Your task to perform on an android device: add a contact in the contacts app Image 0: 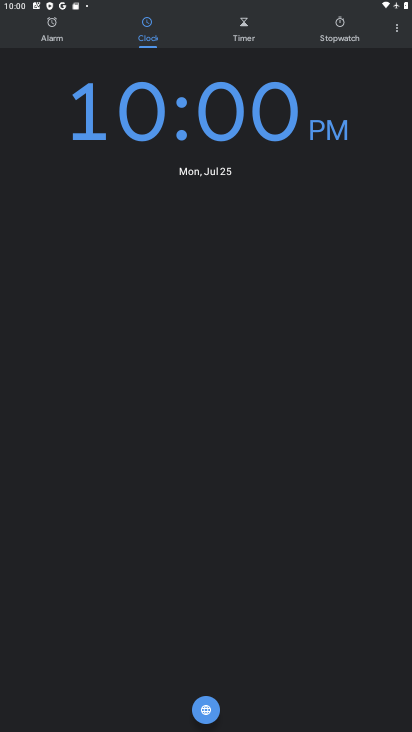
Step 0: press home button
Your task to perform on an android device: add a contact in the contacts app Image 1: 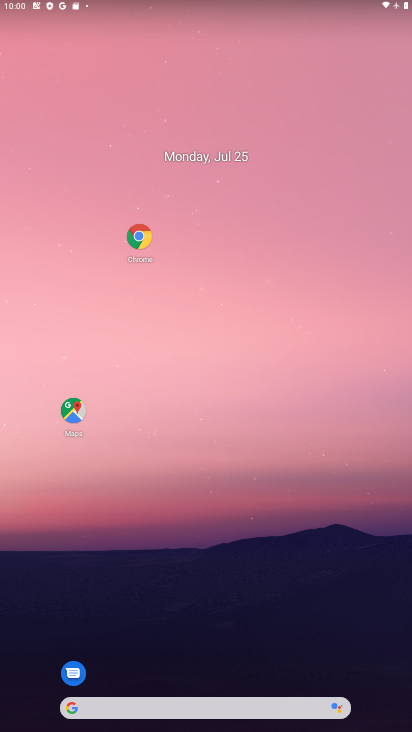
Step 1: drag from (186, 682) to (266, 165)
Your task to perform on an android device: add a contact in the contacts app Image 2: 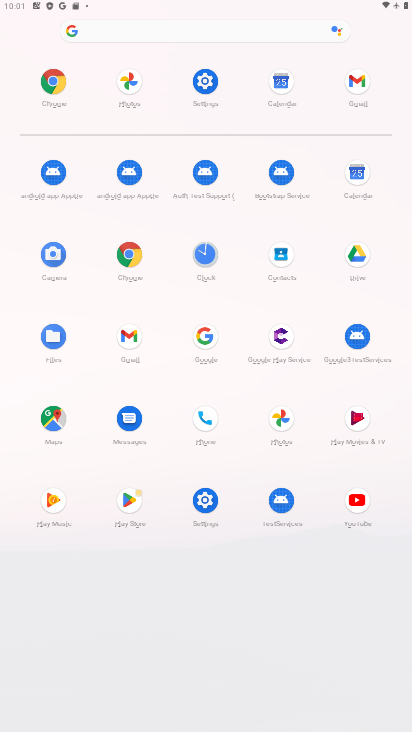
Step 2: click (282, 260)
Your task to perform on an android device: add a contact in the contacts app Image 3: 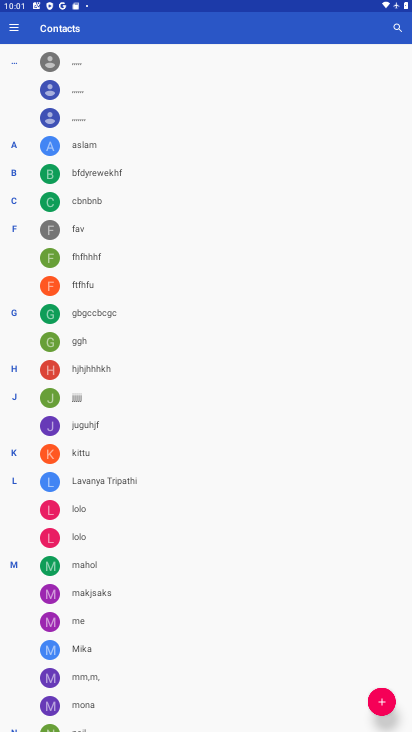
Step 3: click (372, 706)
Your task to perform on an android device: add a contact in the contacts app Image 4: 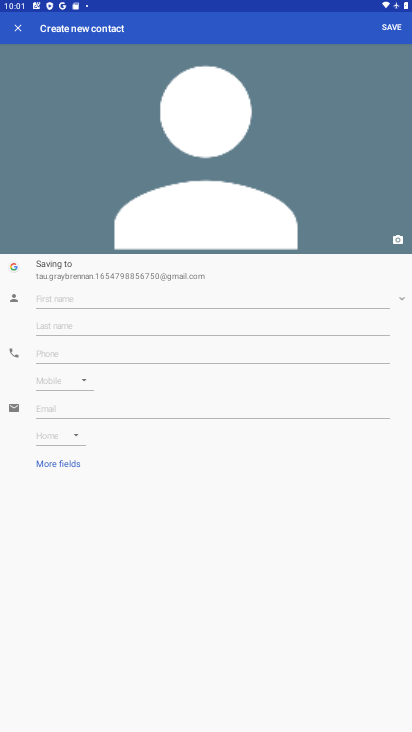
Step 4: click (180, 293)
Your task to perform on an android device: add a contact in the contacts app Image 5: 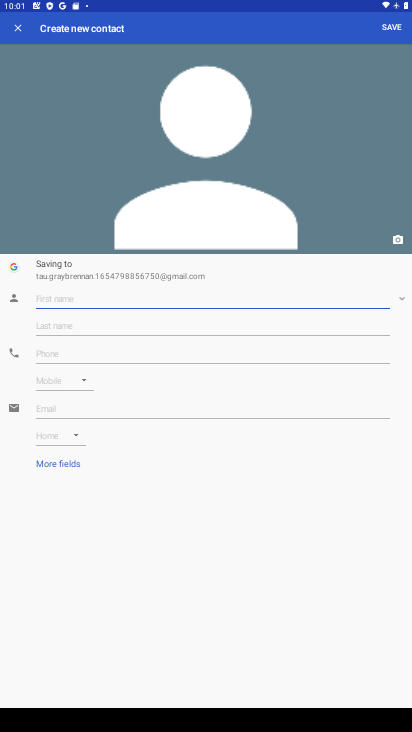
Step 5: type "jknkk"
Your task to perform on an android device: add a contact in the contacts app Image 6: 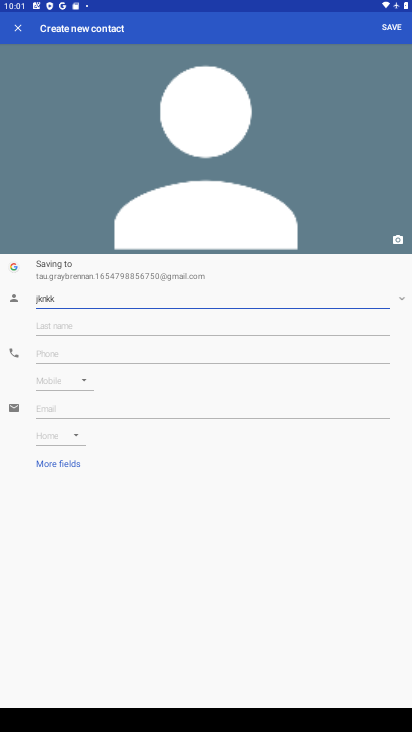
Step 6: click (245, 330)
Your task to perform on an android device: add a contact in the contacts app Image 7: 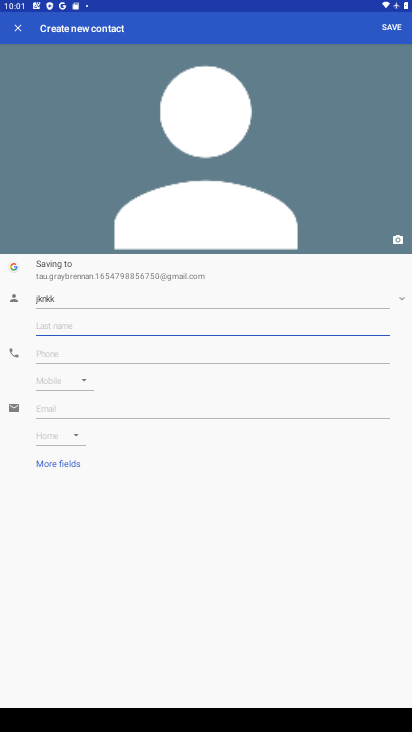
Step 7: type "kffkgc"
Your task to perform on an android device: add a contact in the contacts app Image 8: 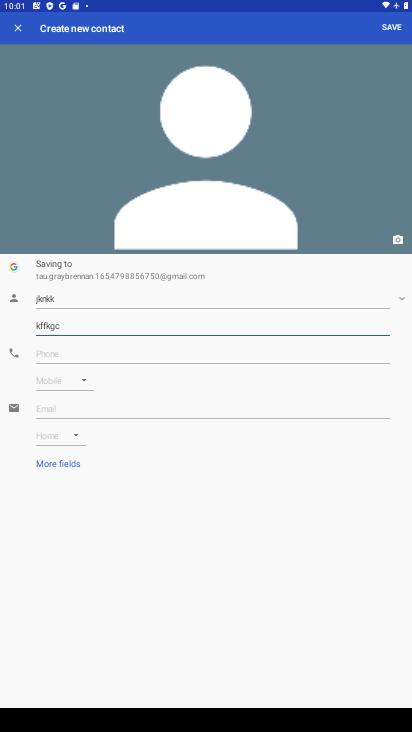
Step 8: click (97, 347)
Your task to perform on an android device: add a contact in the contacts app Image 9: 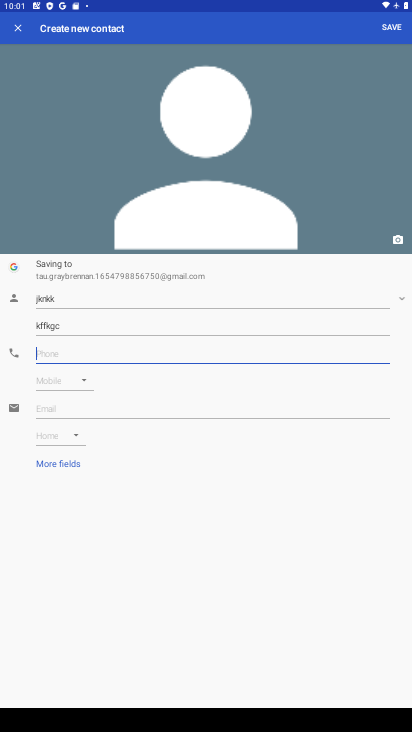
Step 9: type "9768745"
Your task to perform on an android device: add a contact in the contacts app Image 10: 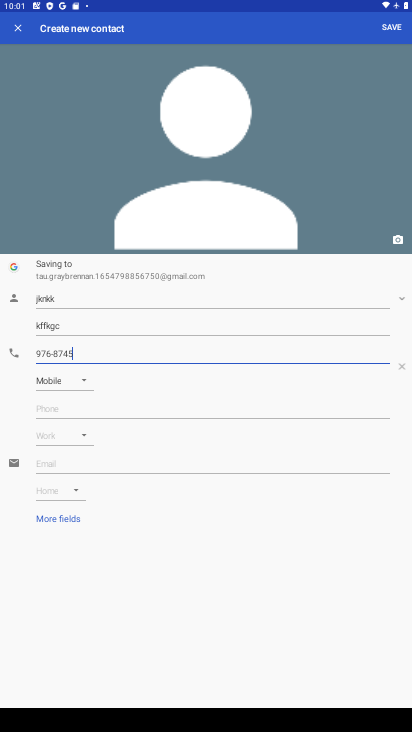
Step 10: click (393, 28)
Your task to perform on an android device: add a contact in the contacts app Image 11: 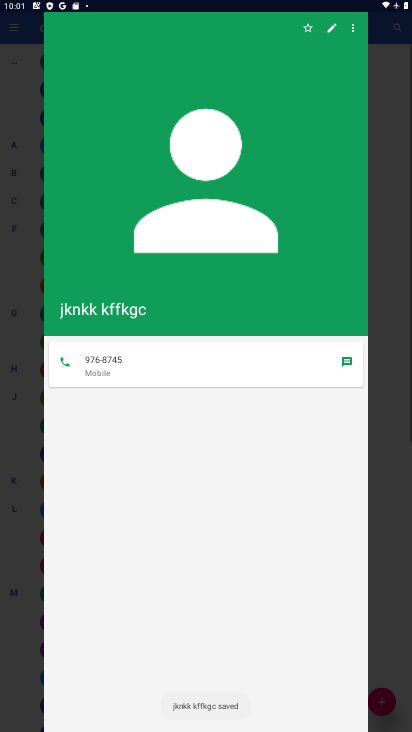
Step 11: task complete